Your task to perform on an android device: toggle sleep mode Image 0: 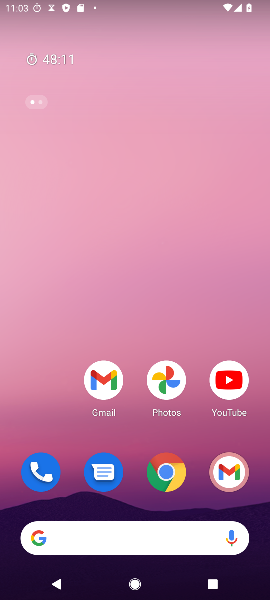
Step 0: drag from (202, 441) to (183, 76)
Your task to perform on an android device: toggle sleep mode Image 1: 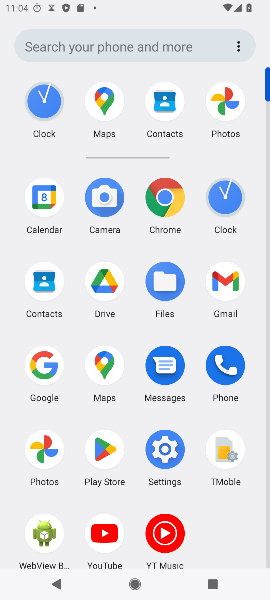
Step 1: click (166, 463)
Your task to perform on an android device: toggle sleep mode Image 2: 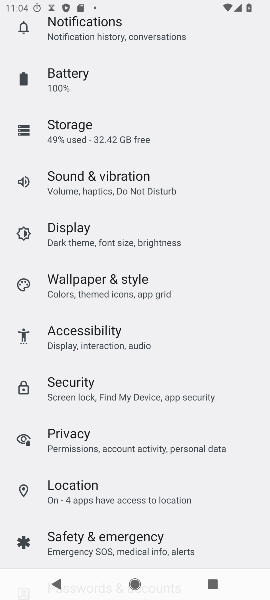
Step 2: click (128, 244)
Your task to perform on an android device: toggle sleep mode Image 3: 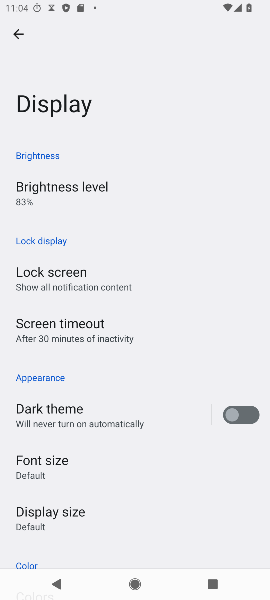
Step 3: click (128, 244)
Your task to perform on an android device: toggle sleep mode Image 4: 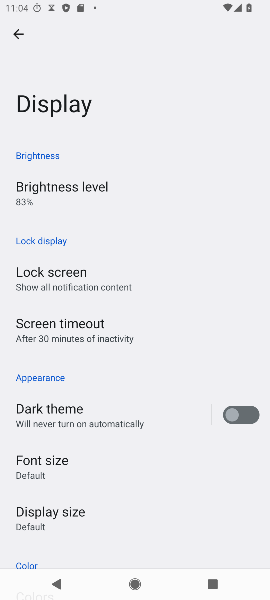
Step 4: task complete